Your task to perform on an android device: turn off sleep mode Image 0: 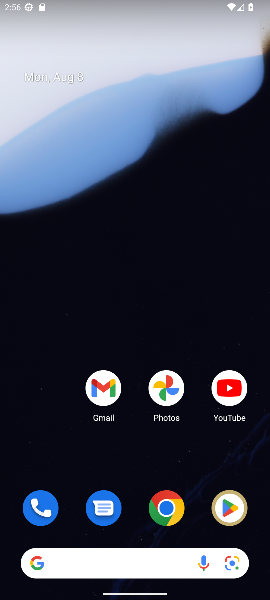
Step 0: drag from (37, 451) to (40, 86)
Your task to perform on an android device: turn off sleep mode Image 1: 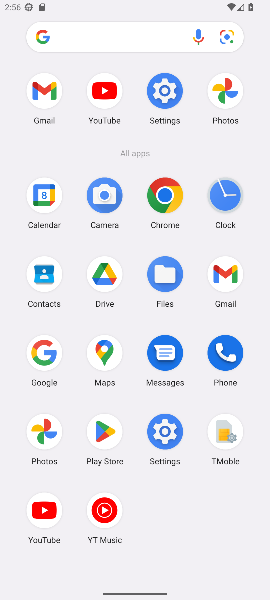
Step 1: click (161, 91)
Your task to perform on an android device: turn off sleep mode Image 2: 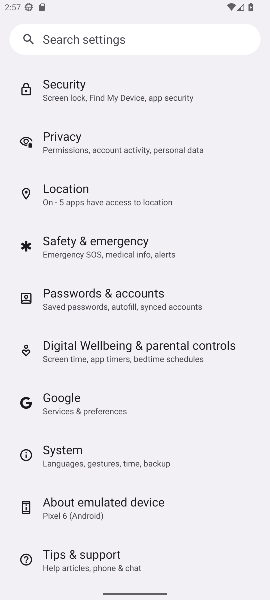
Step 2: drag from (227, 127) to (227, 345)
Your task to perform on an android device: turn off sleep mode Image 3: 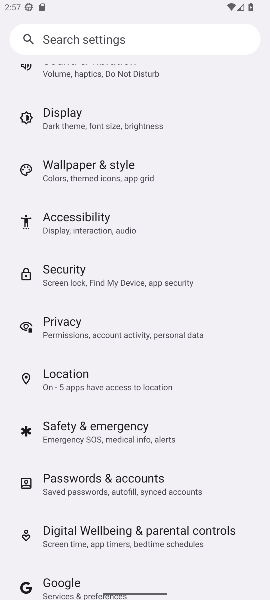
Step 3: drag from (186, 112) to (228, 390)
Your task to perform on an android device: turn off sleep mode Image 4: 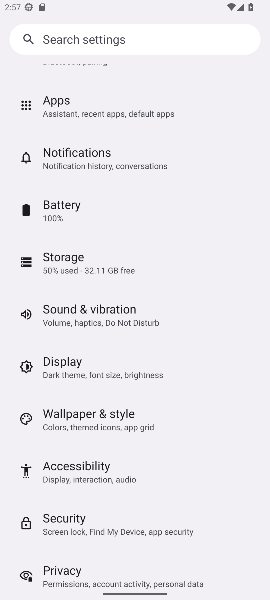
Step 4: drag from (167, 210) to (213, 572)
Your task to perform on an android device: turn off sleep mode Image 5: 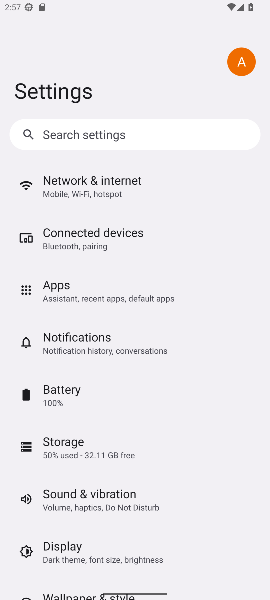
Step 5: drag from (195, 524) to (204, 356)
Your task to perform on an android device: turn off sleep mode Image 6: 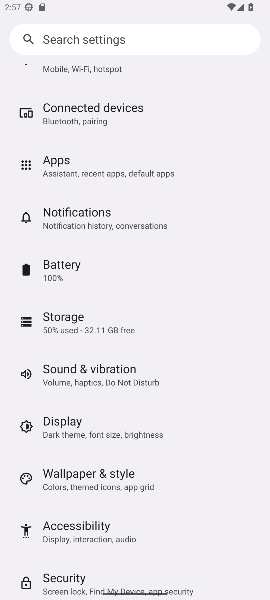
Step 6: click (79, 422)
Your task to perform on an android device: turn off sleep mode Image 7: 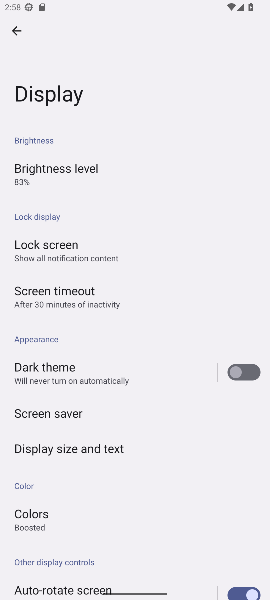
Step 7: task complete